Your task to perform on an android device: open app "TextNow: Call + Text Unlimited" (install if not already installed) and go to login screen Image 0: 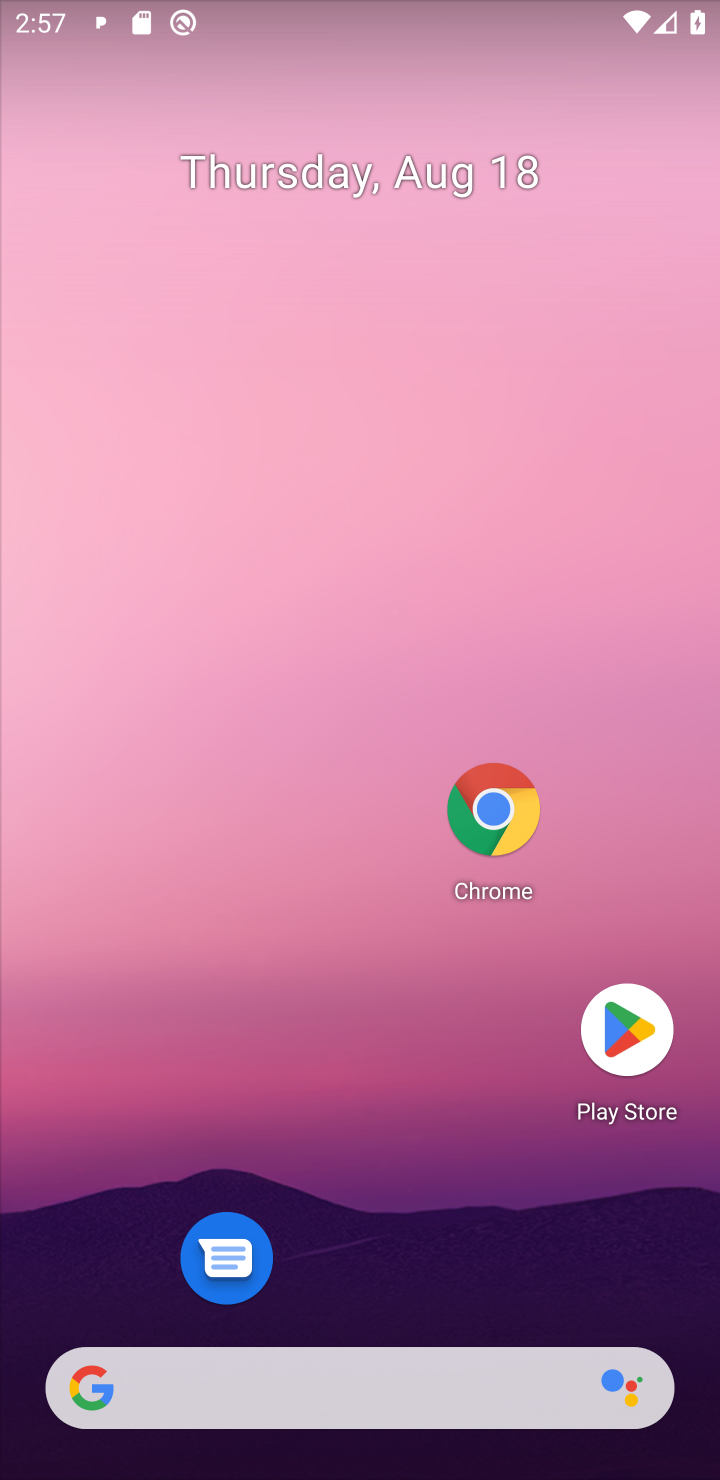
Step 0: drag from (355, 1213) to (353, 309)
Your task to perform on an android device: open app "TextNow: Call + Text Unlimited" (install if not already installed) and go to login screen Image 1: 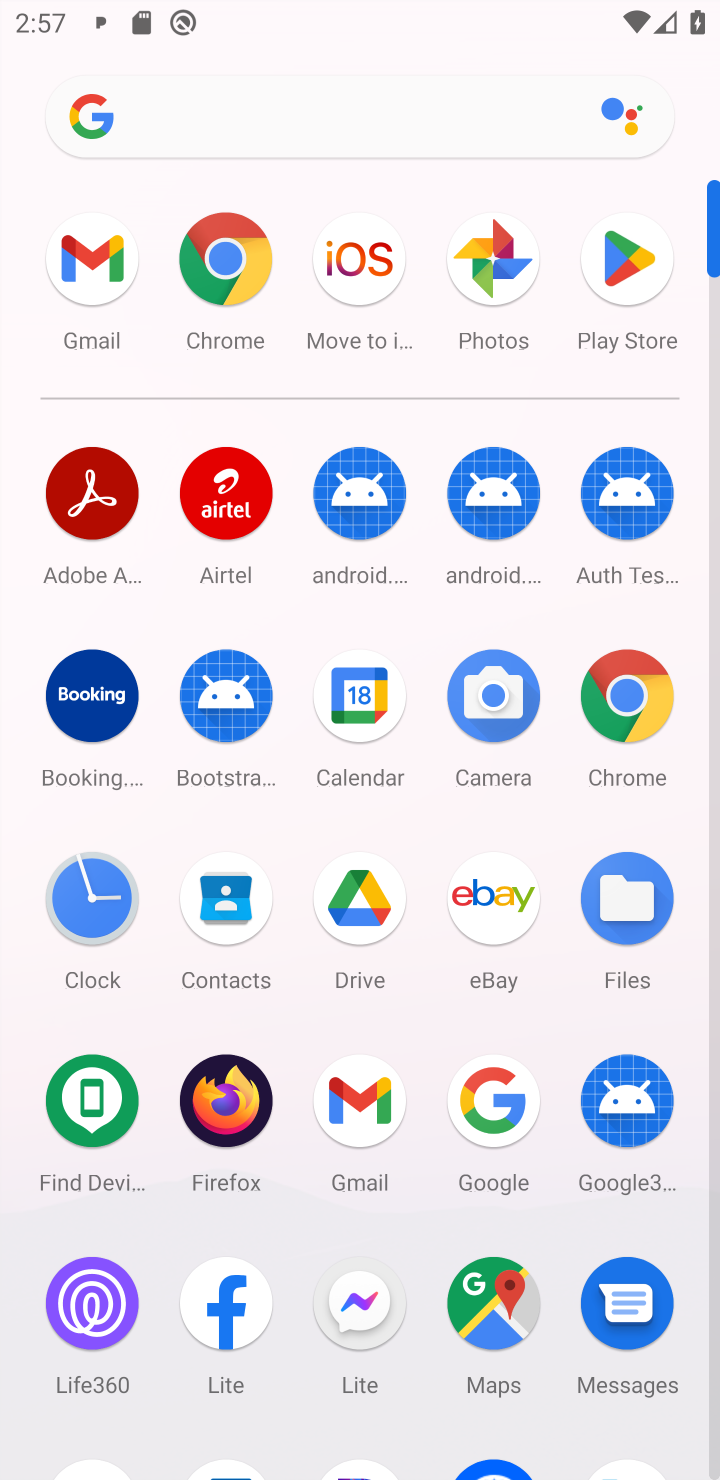
Step 1: click (597, 255)
Your task to perform on an android device: open app "TextNow: Call + Text Unlimited" (install if not already installed) and go to login screen Image 2: 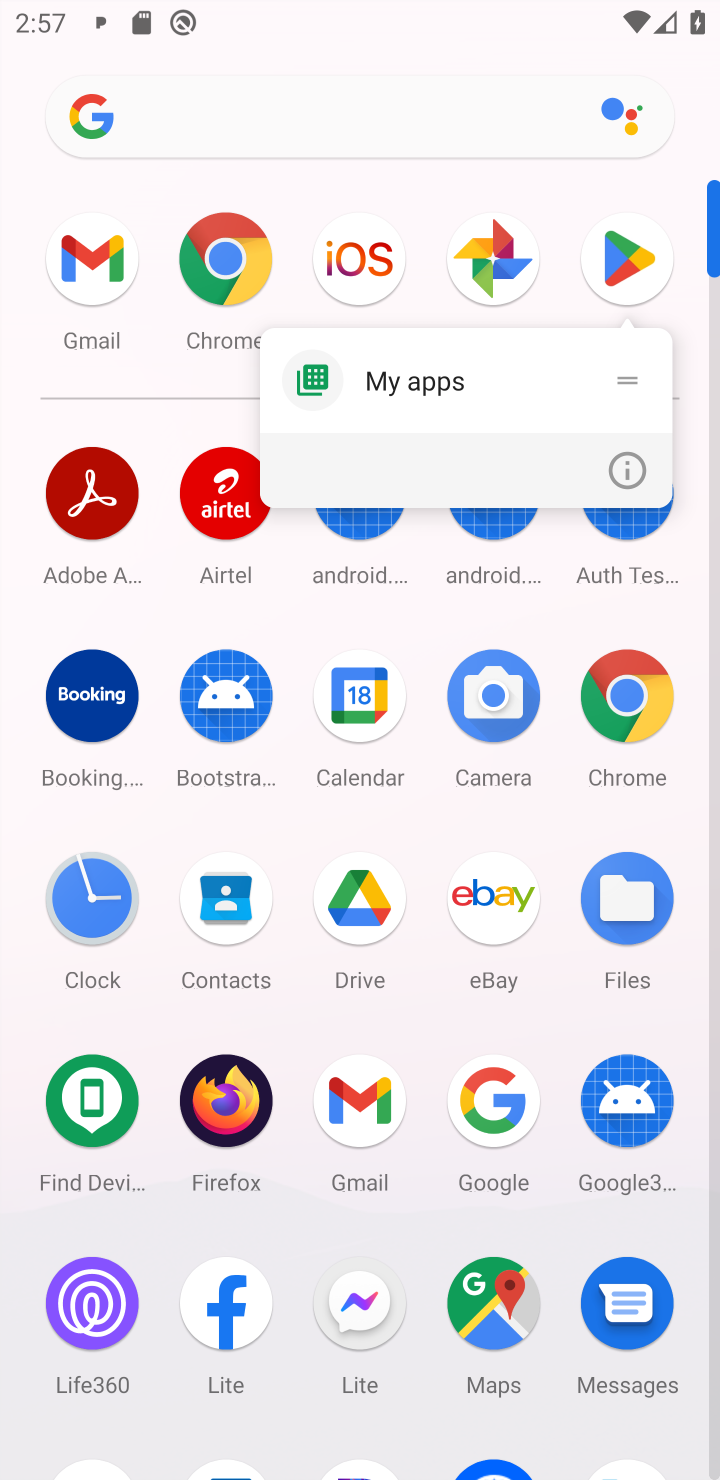
Step 2: click (632, 279)
Your task to perform on an android device: open app "TextNow: Call + Text Unlimited" (install if not already installed) and go to login screen Image 3: 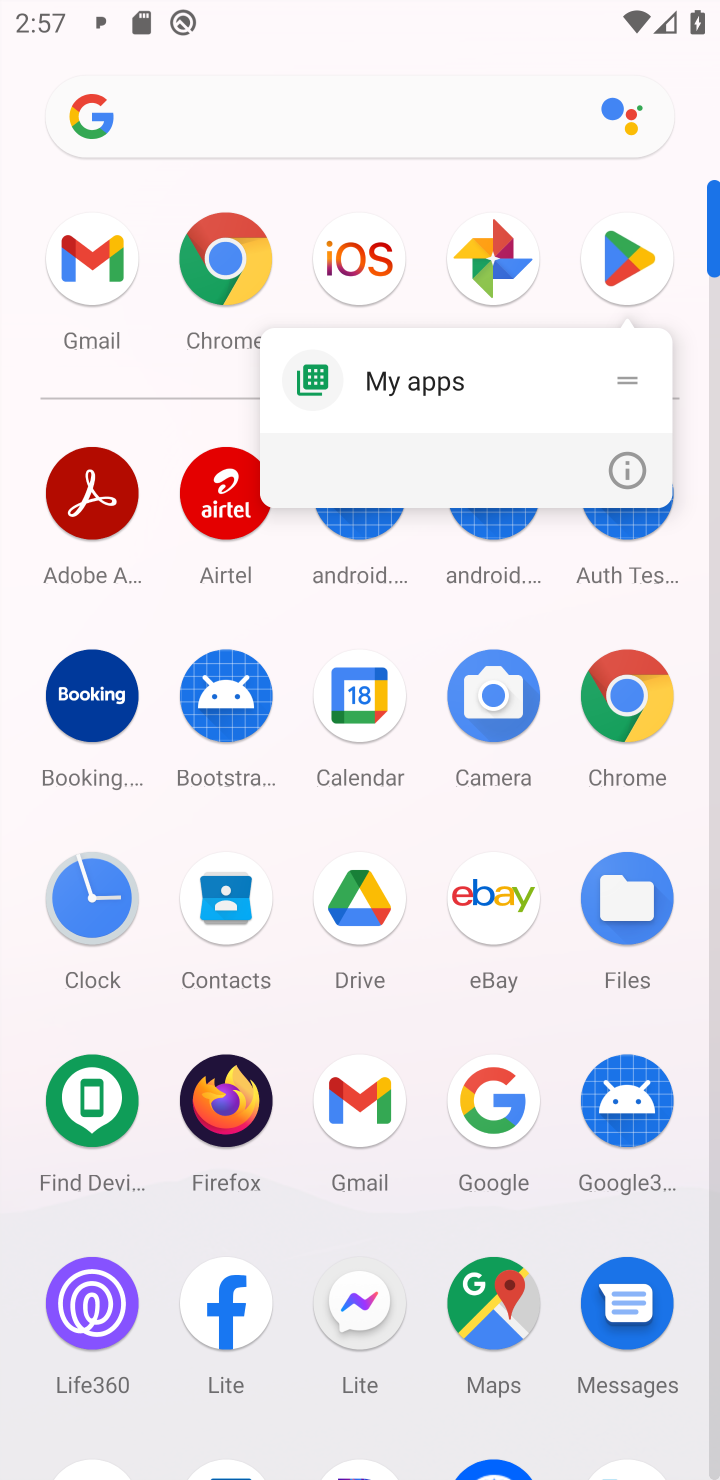
Step 3: click (628, 254)
Your task to perform on an android device: open app "TextNow: Call + Text Unlimited" (install if not already installed) and go to login screen Image 4: 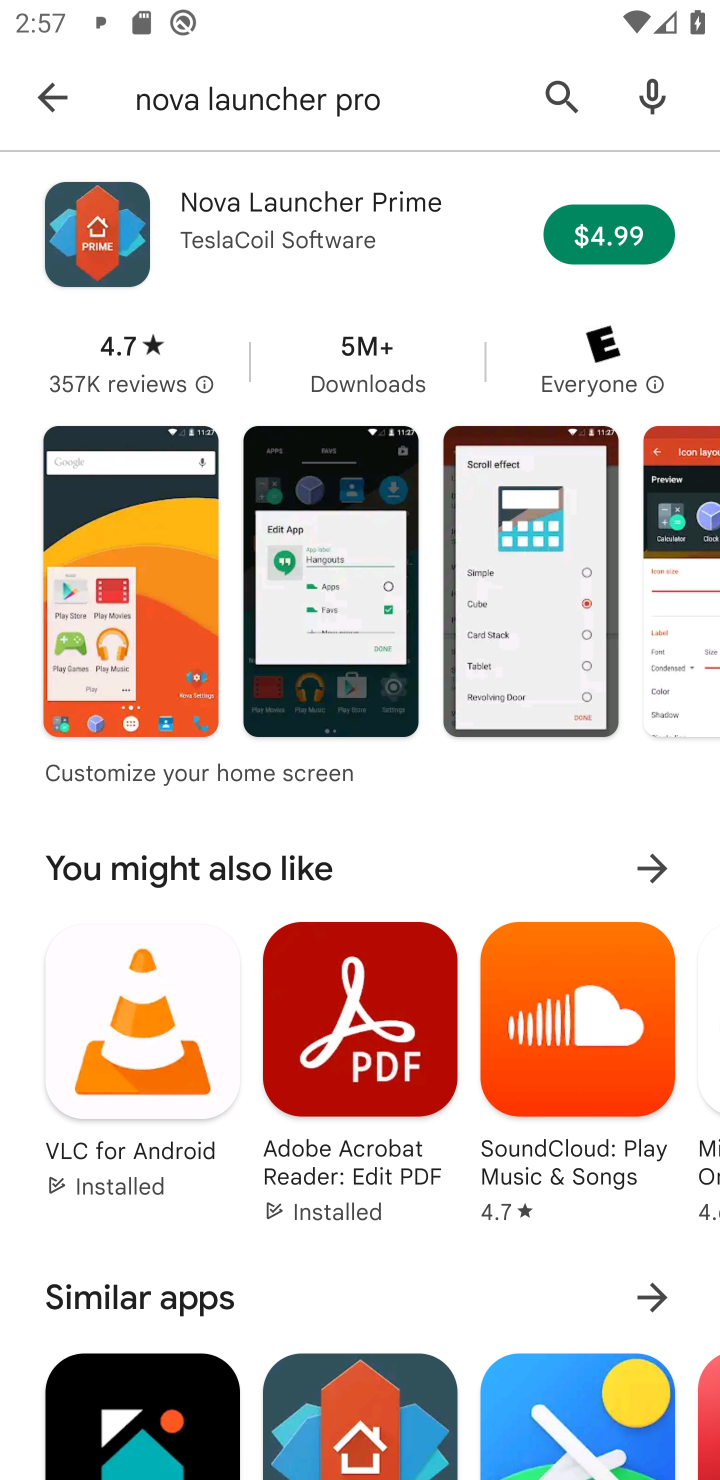
Step 4: click (545, 95)
Your task to perform on an android device: open app "TextNow: Call + Text Unlimited" (install if not already installed) and go to login screen Image 5: 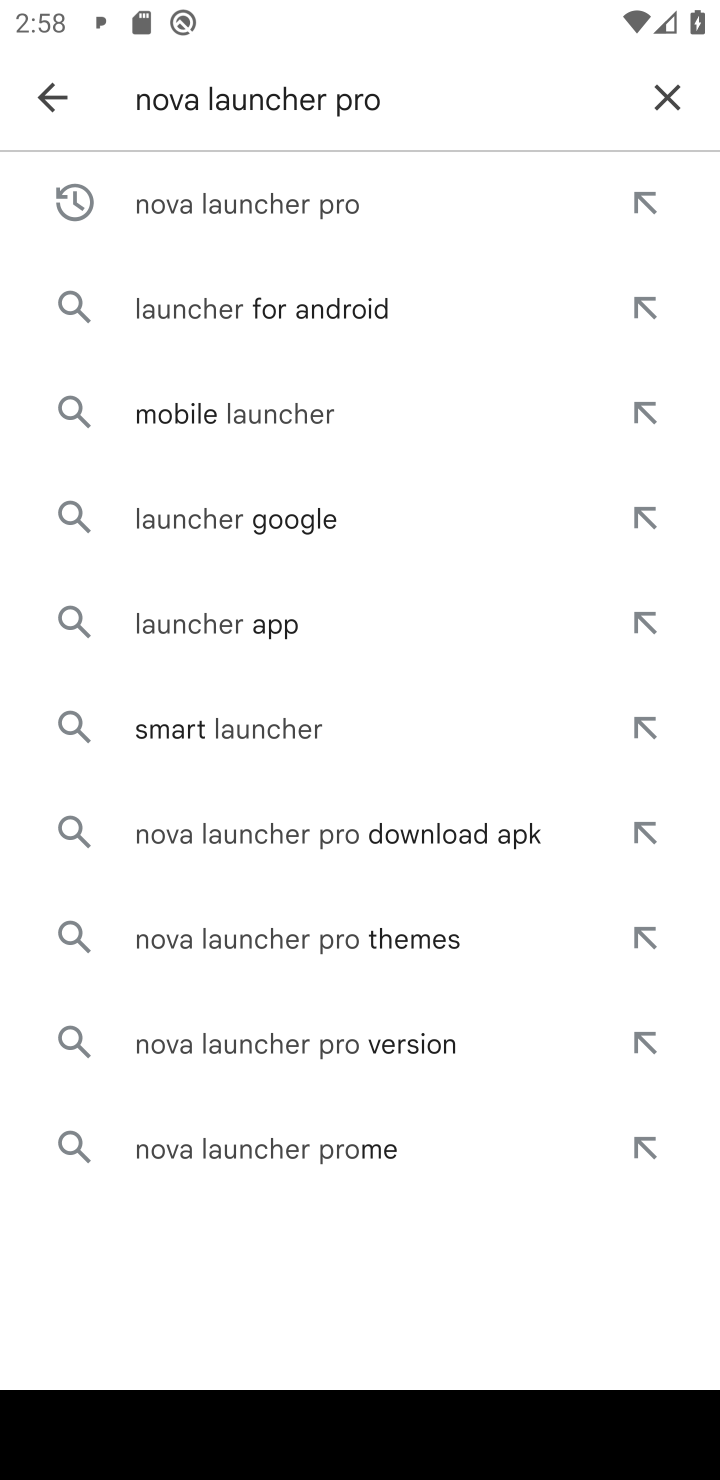
Step 5: click (676, 88)
Your task to perform on an android device: open app "TextNow: Call + Text Unlimited" (install if not already installed) and go to login screen Image 6: 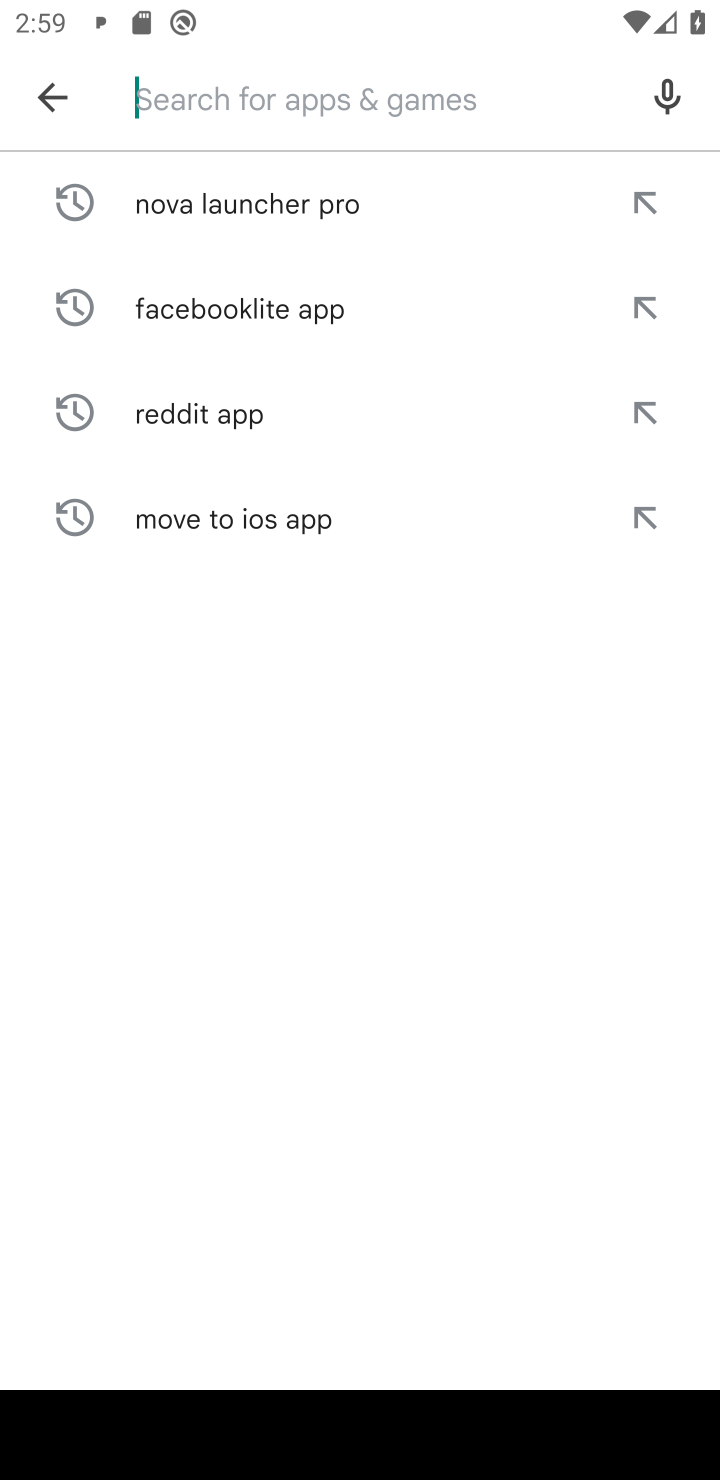
Step 6: click (383, 86)
Your task to perform on an android device: open app "TextNow: Call + Text Unlimited" (install if not already installed) and go to login screen Image 7: 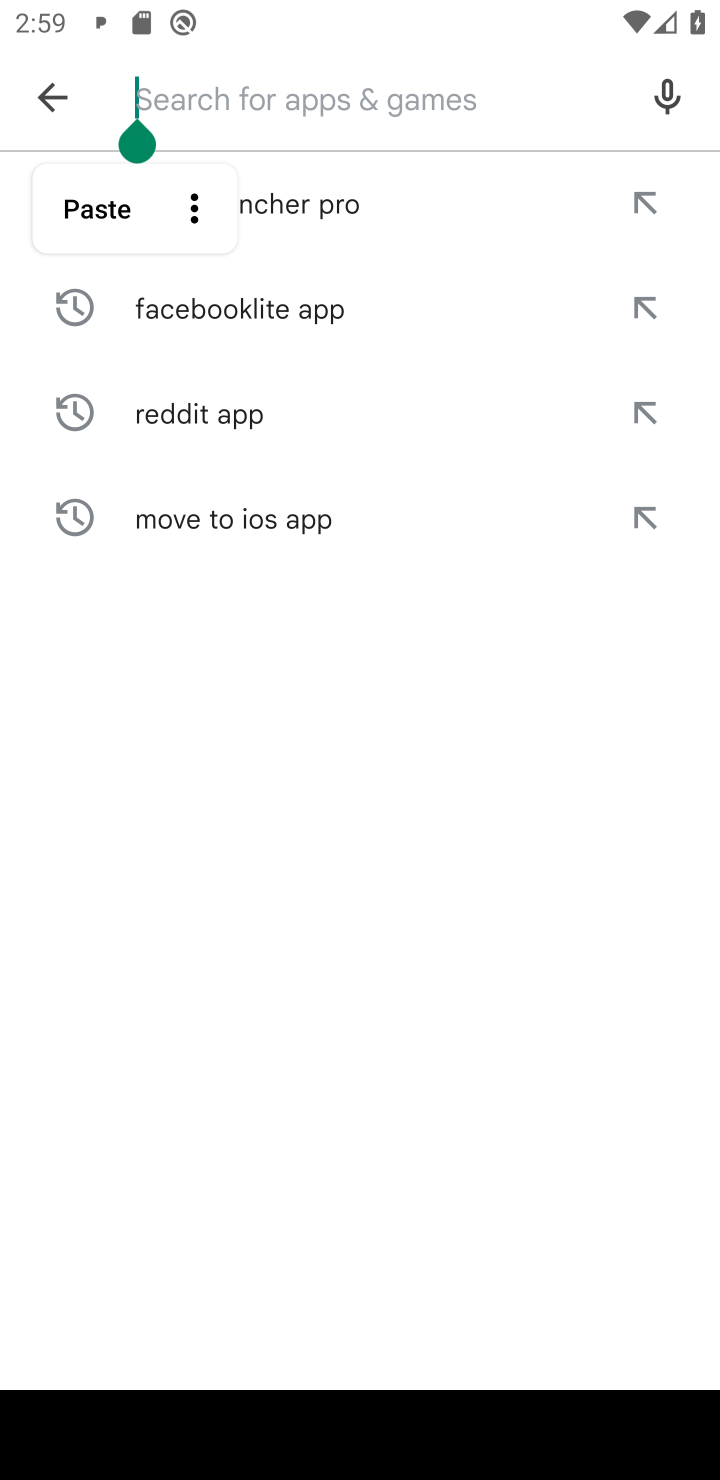
Step 7: type "TextNow: Call + Text Unlimited "
Your task to perform on an android device: open app "TextNow: Call + Text Unlimited" (install if not already installed) and go to login screen Image 8: 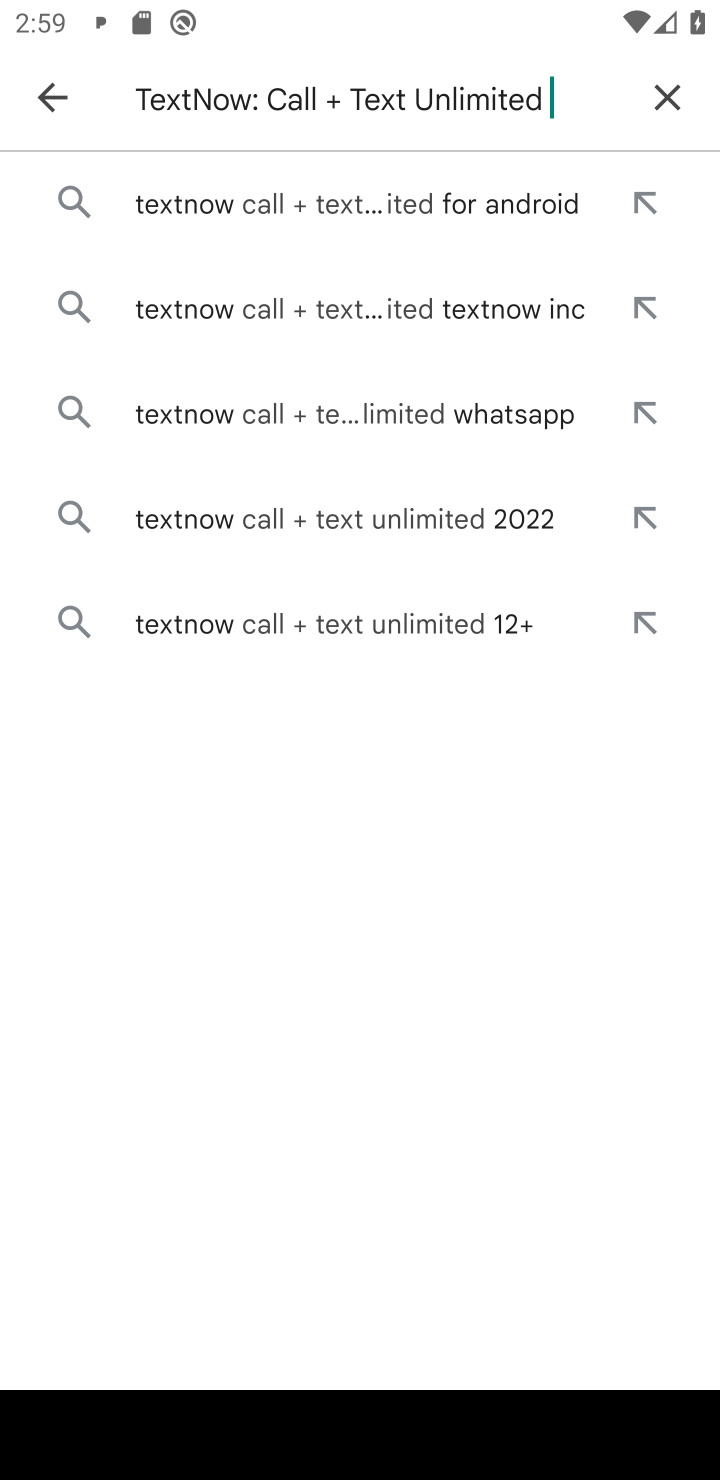
Step 8: click (270, 209)
Your task to perform on an android device: open app "TextNow: Call + Text Unlimited" (install if not already installed) and go to login screen Image 9: 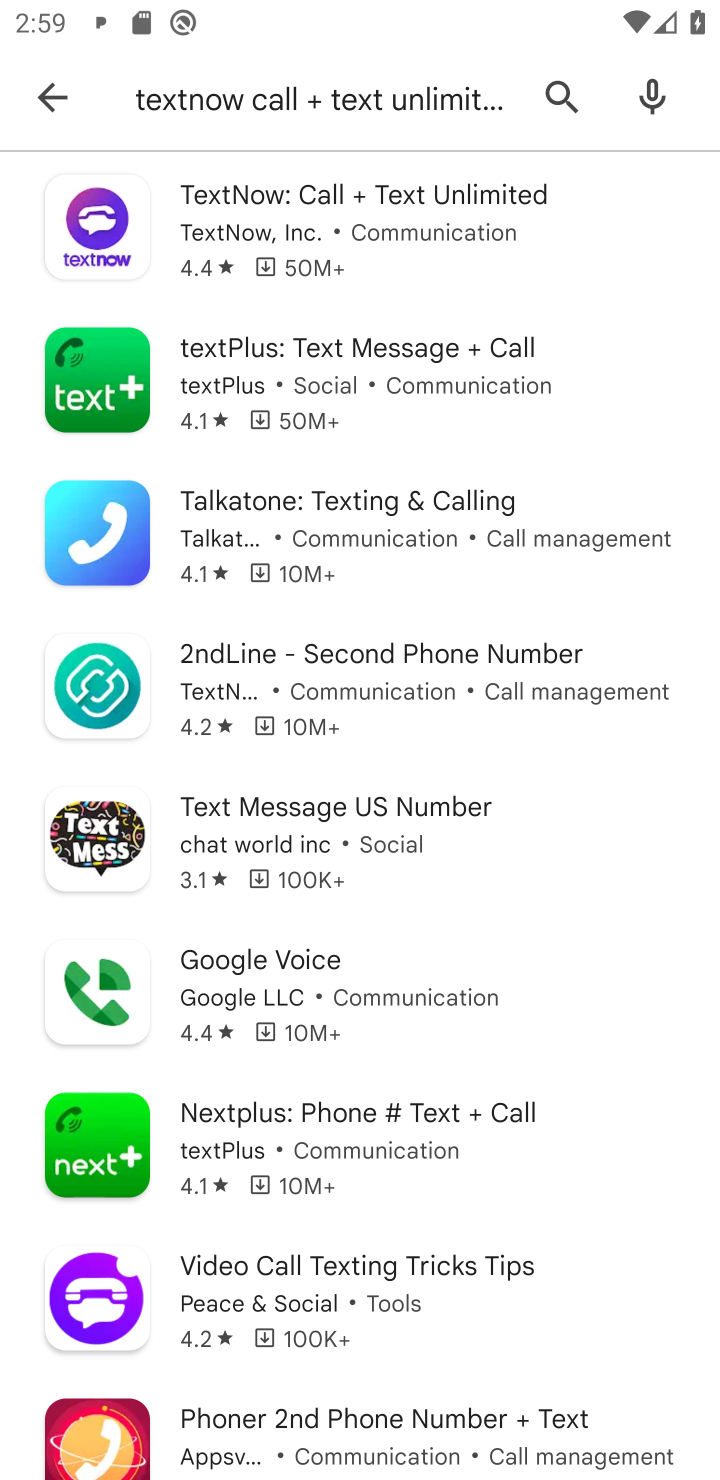
Step 9: click (391, 206)
Your task to perform on an android device: open app "TextNow: Call + Text Unlimited" (install if not already installed) and go to login screen Image 10: 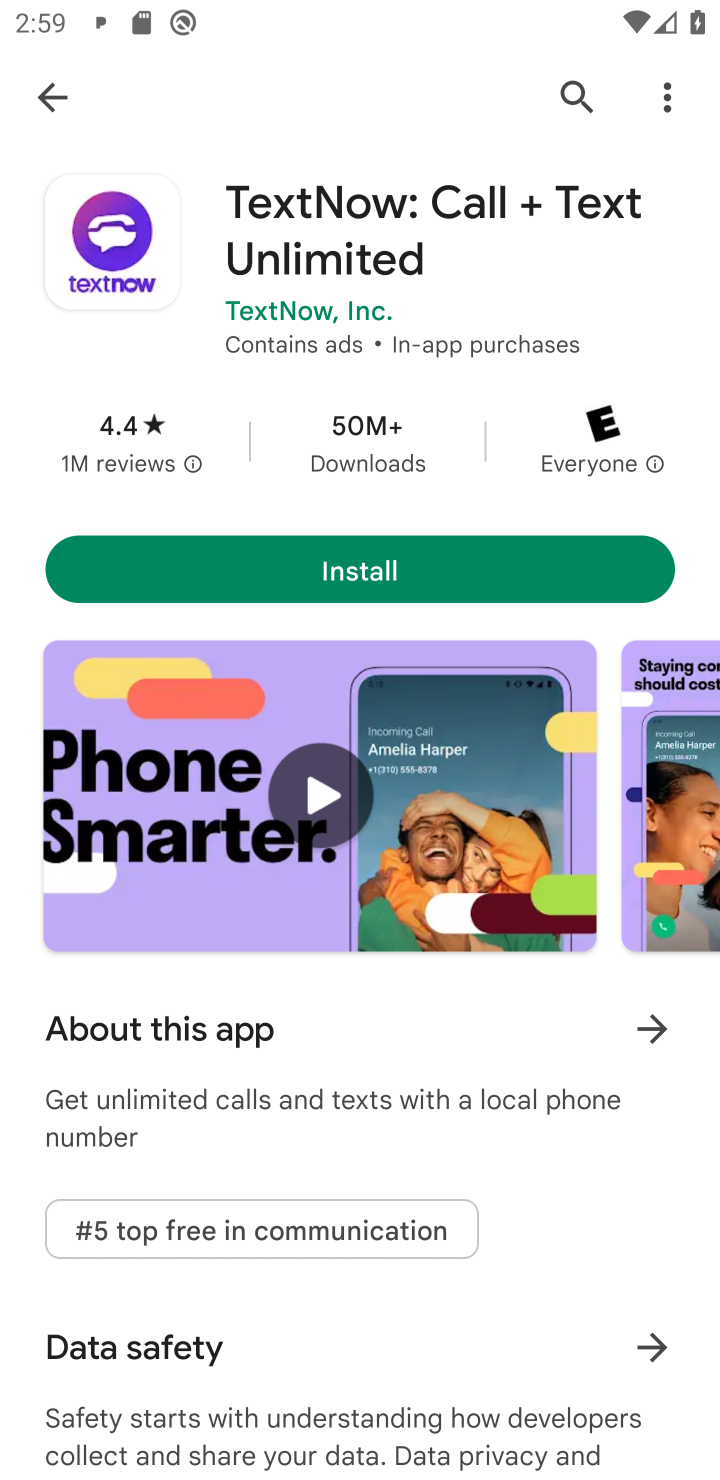
Step 10: click (485, 550)
Your task to perform on an android device: open app "TextNow: Call + Text Unlimited" (install if not already installed) and go to login screen Image 11: 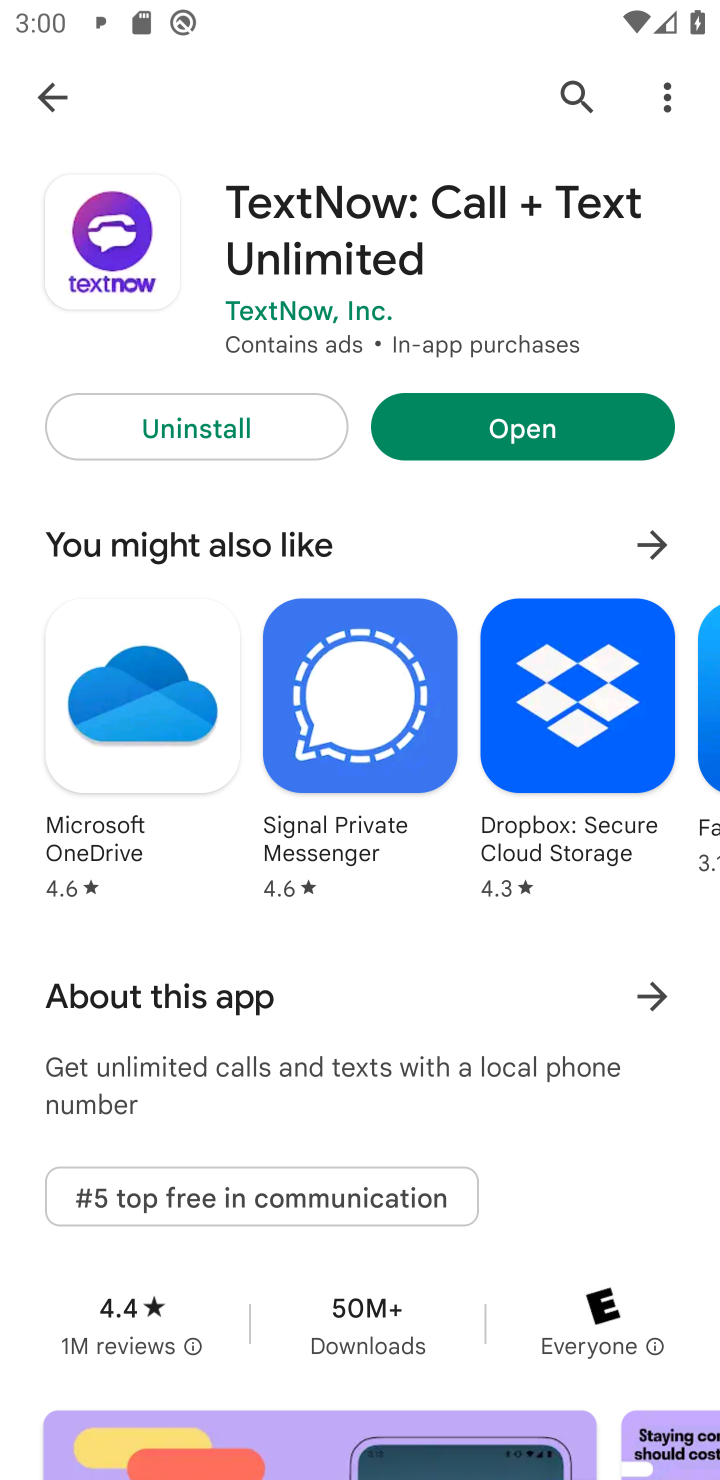
Step 11: click (458, 413)
Your task to perform on an android device: open app "TextNow: Call + Text Unlimited" (install if not already installed) and go to login screen Image 12: 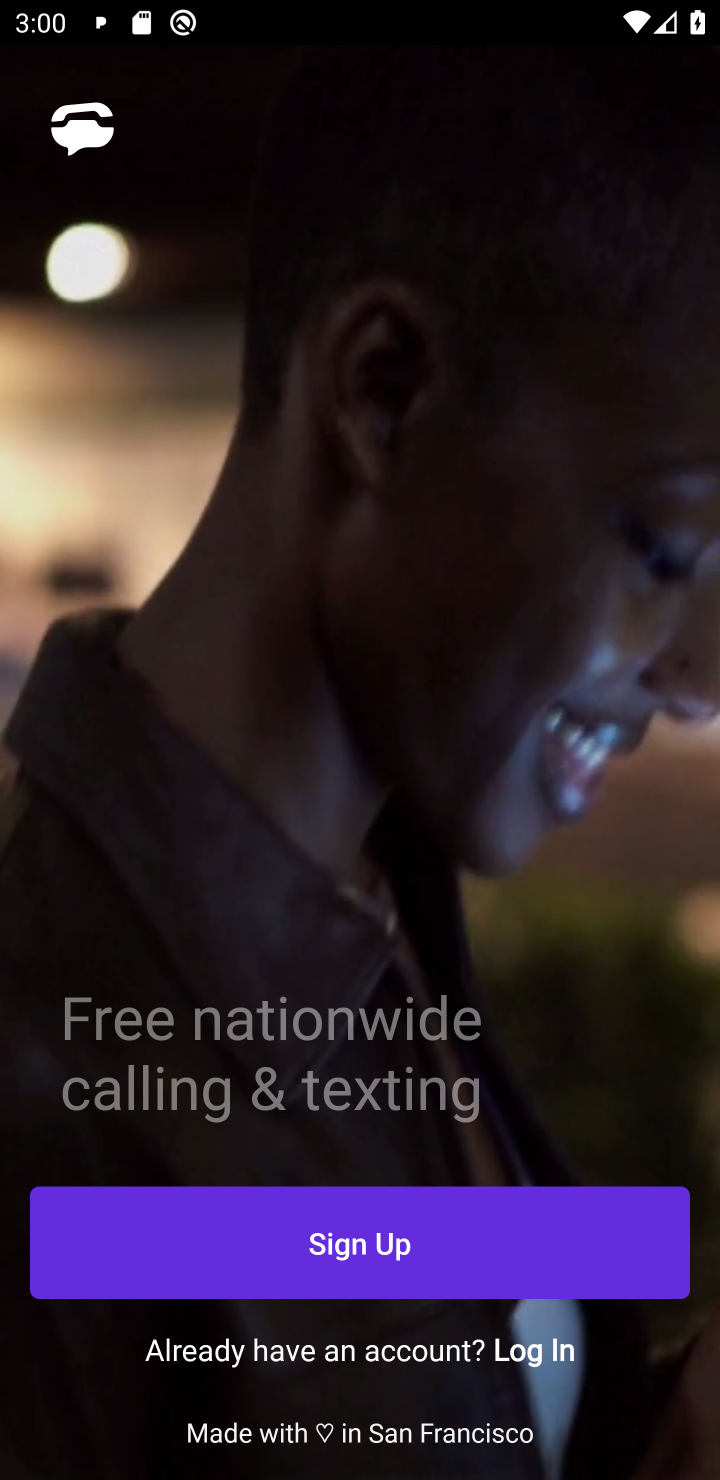
Step 12: task complete